Your task to perform on an android device: show emergency info Image 0: 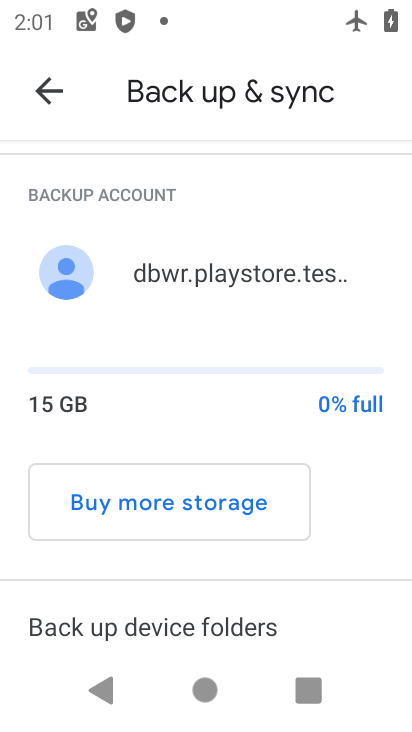
Step 0: press home button
Your task to perform on an android device: show emergency info Image 1: 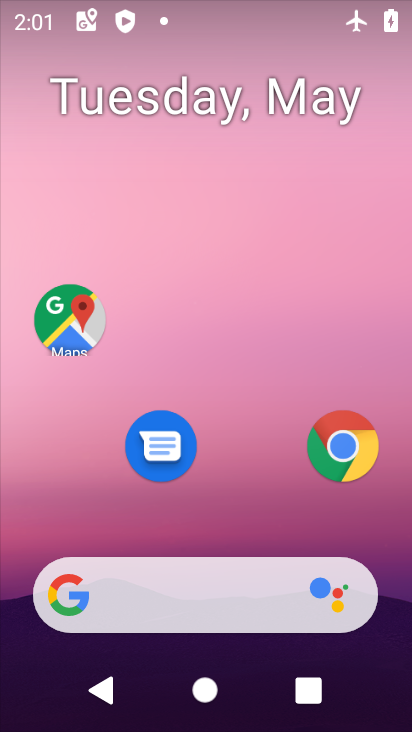
Step 1: drag from (204, 539) to (36, 245)
Your task to perform on an android device: show emergency info Image 2: 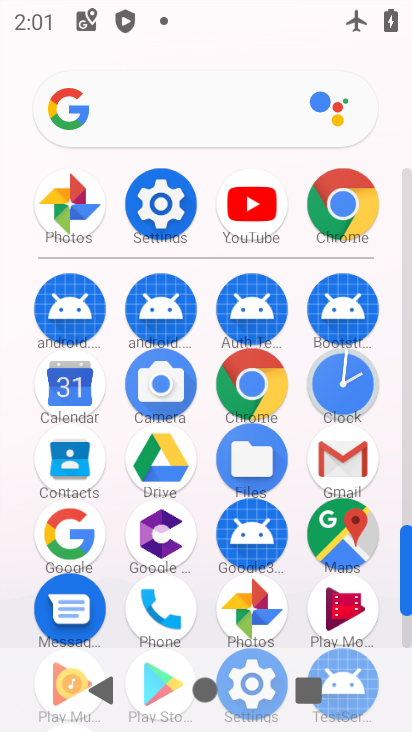
Step 2: click (156, 222)
Your task to perform on an android device: show emergency info Image 3: 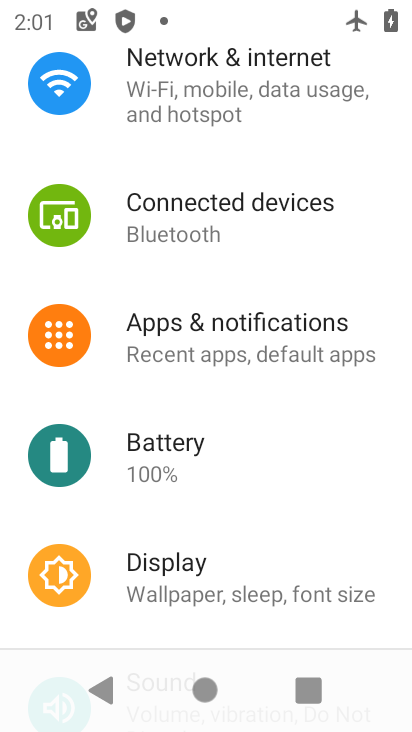
Step 3: drag from (255, 451) to (174, 50)
Your task to perform on an android device: show emergency info Image 4: 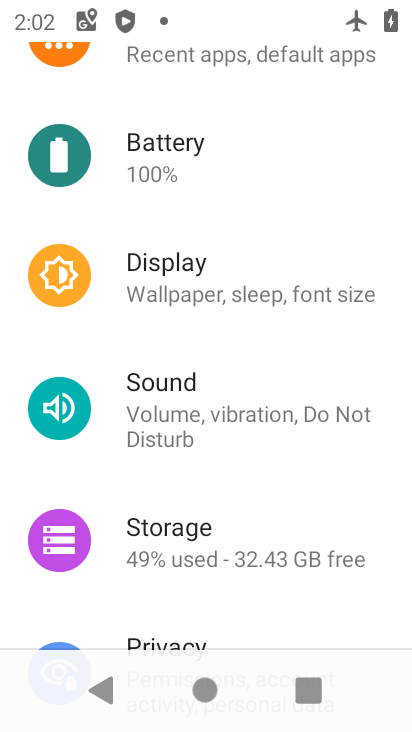
Step 4: drag from (267, 503) to (210, 26)
Your task to perform on an android device: show emergency info Image 5: 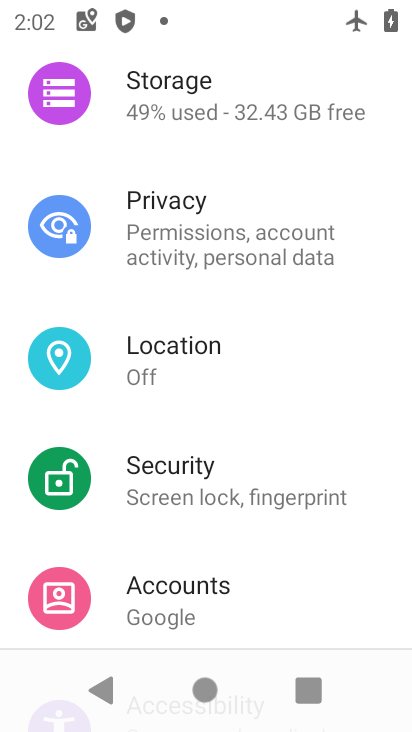
Step 5: drag from (217, 622) to (190, 44)
Your task to perform on an android device: show emergency info Image 6: 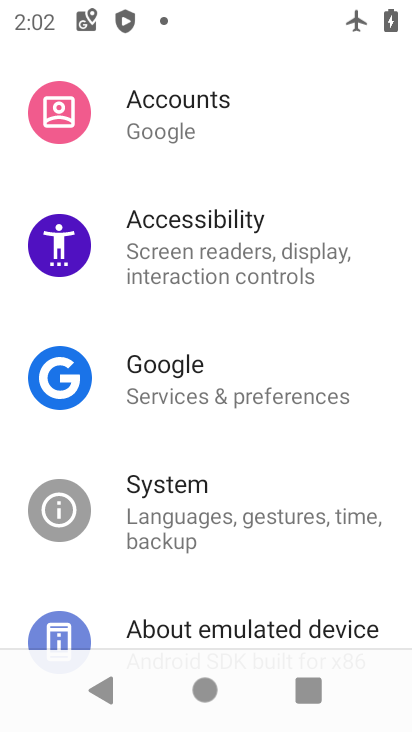
Step 6: click (211, 625)
Your task to perform on an android device: show emergency info Image 7: 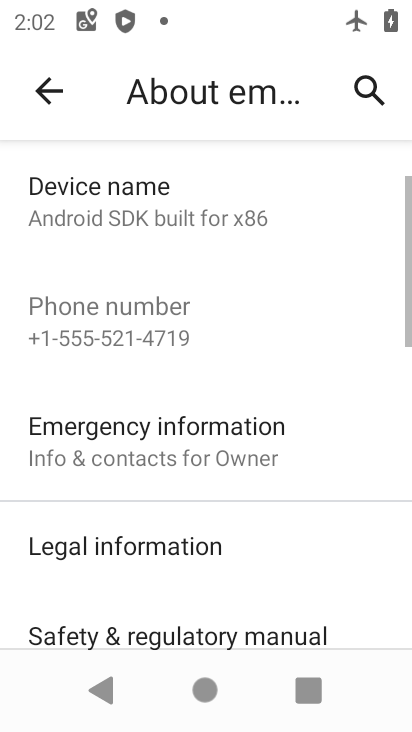
Step 7: click (66, 456)
Your task to perform on an android device: show emergency info Image 8: 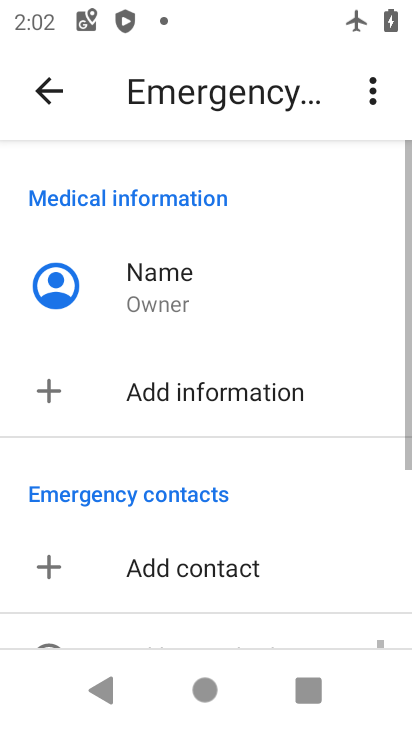
Step 8: task complete